Your task to perform on an android device: delete browsing data in the chrome app Image 0: 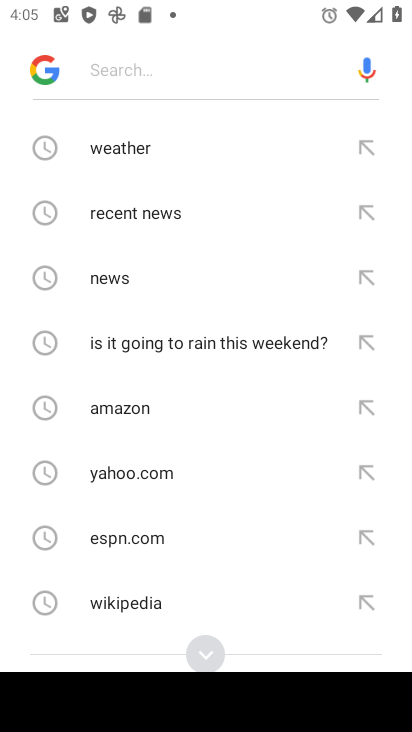
Step 0: press back button
Your task to perform on an android device: delete browsing data in the chrome app Image 1: 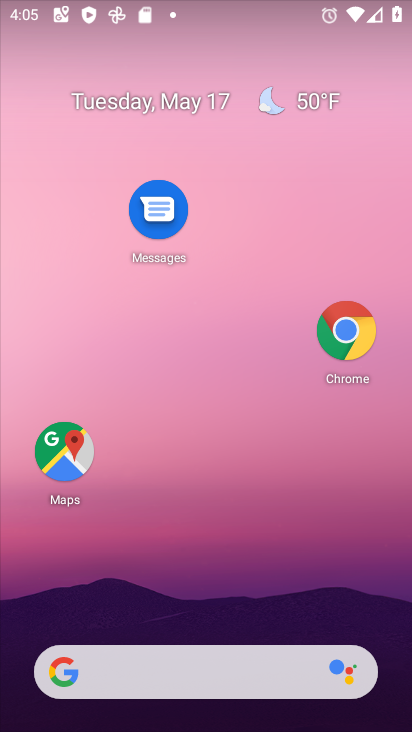
Step 1: click (359, 360)
Your task to perform on an android device: delete browsing data in the chrome app Image 2: 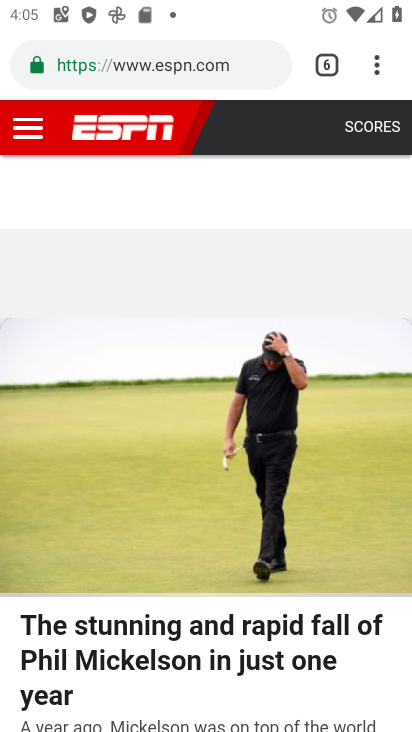
Step 2: click (373, 74)
Your task to perform on an android device: delete browsing data in the chrome app Image 3: 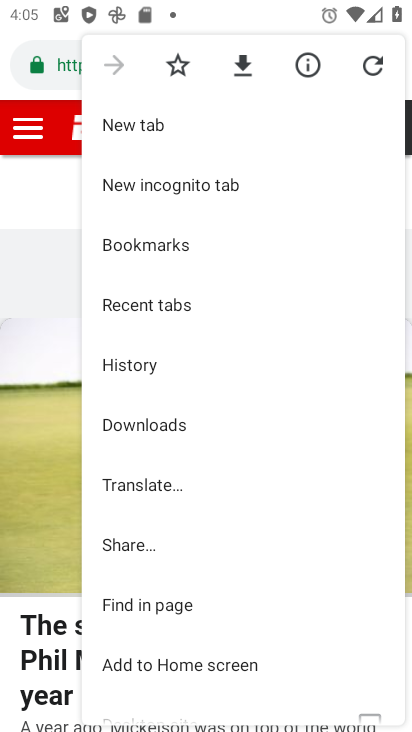
Step 3: click (201, 391)
Your task to perform on an android device: delete browsing data in the chrome app Image 4: 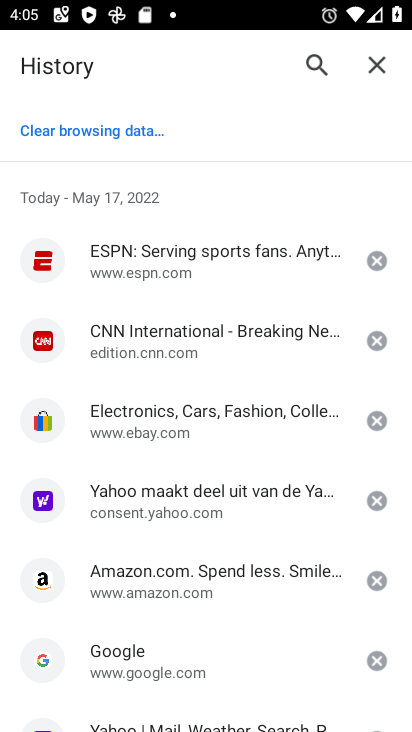
Step 4: click (73, 124)
Your task to perform on an android device: delete browsing data in the chrome app Image 5: 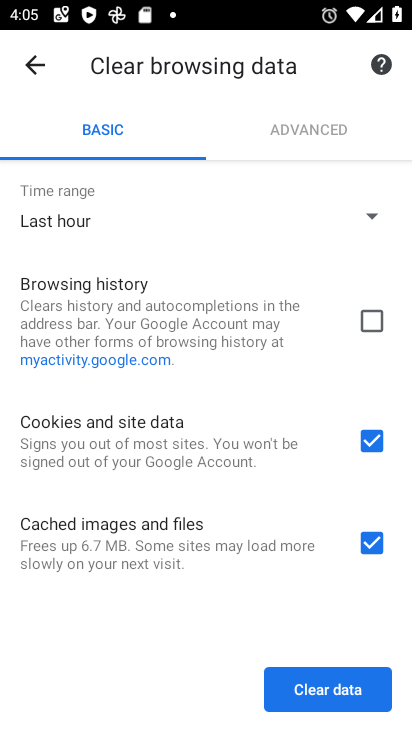
Step 5: click (348, 459)
Your task to perform on an android device: delete browsing data in the chrome app Image 6: 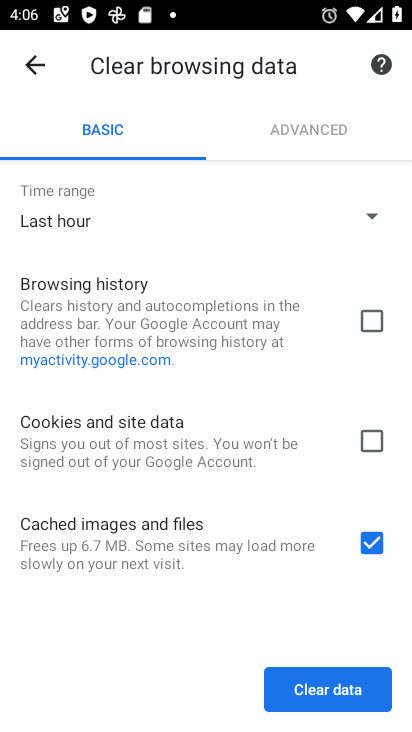
Step 6: click (376, 526)
Your task to perform on an android device: delete browsing data in the chrome app Image 7: 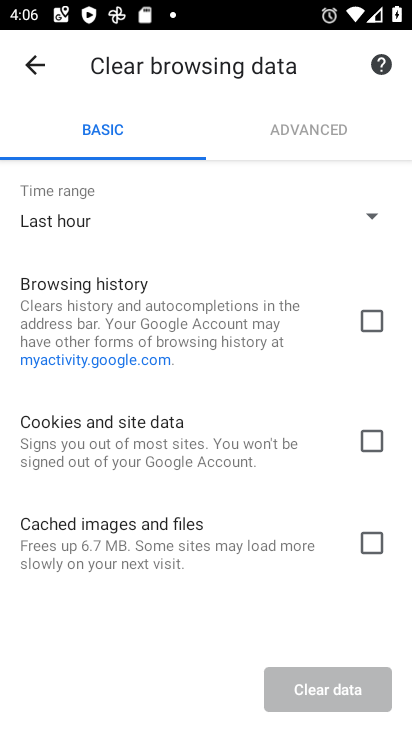
Step 7: click (335, 342)
Your task to perform on an android device: delete browsing data in the chrome app Image 8: 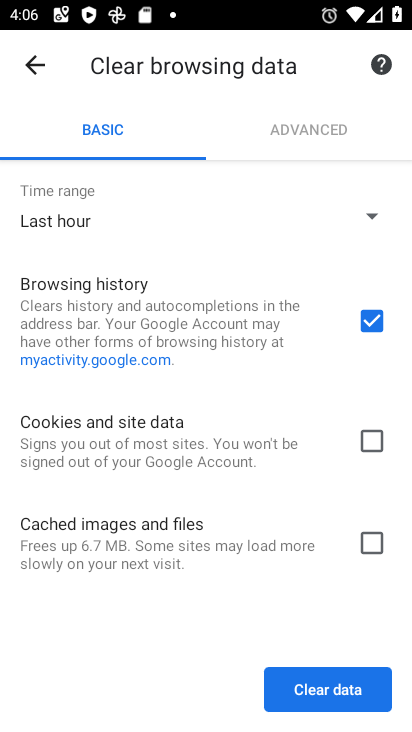
Step 8: click (366, 688)
Your task to perform on an android device: delete browsing data in the chrome app Image 9: 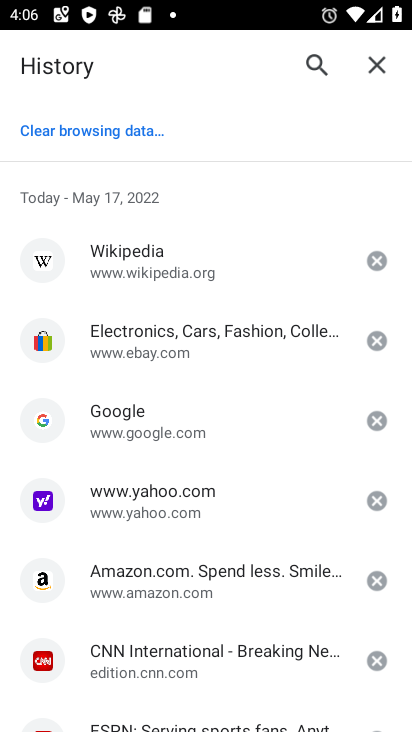
Step 9: task complete